Your task to perform on an android device: delete a single message in the gmail app Image 0: 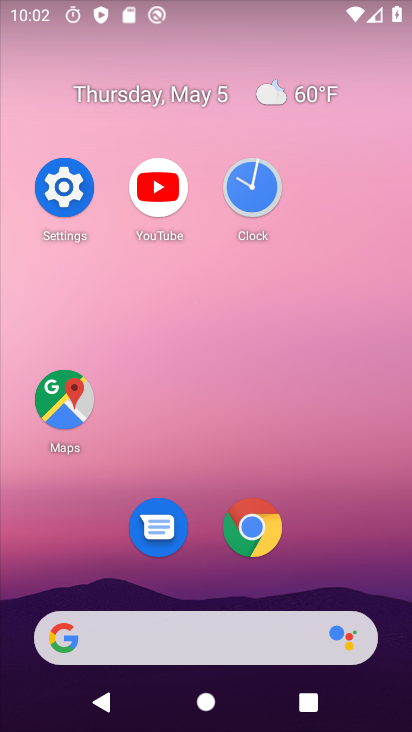
Step 0: drag from (338, 504) to (323, 106)
Your task to perform on an android device: delete a single message in the gmail app Image 1: 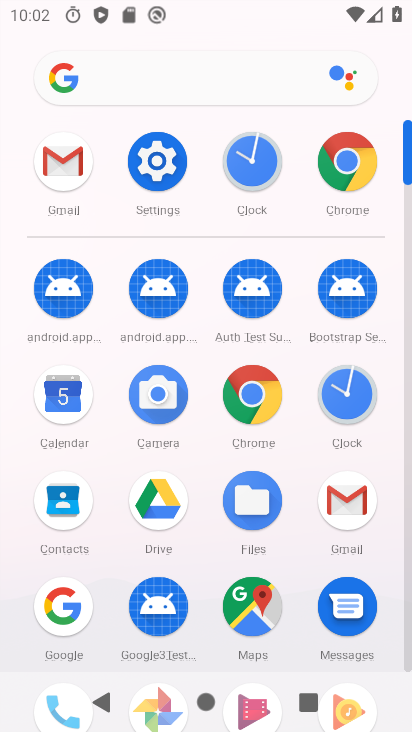
Step 1: drag from (344, 509) to (100, 284)
Your task to perform on an android device: delete a single message in the gmail app Image 2: 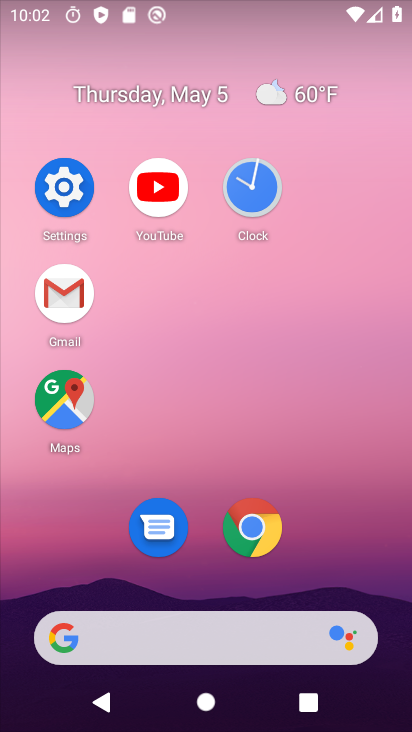
Step 2: click (63, 277)
Your task to perform on an android device: delete a single message in the gmail app Image 3: 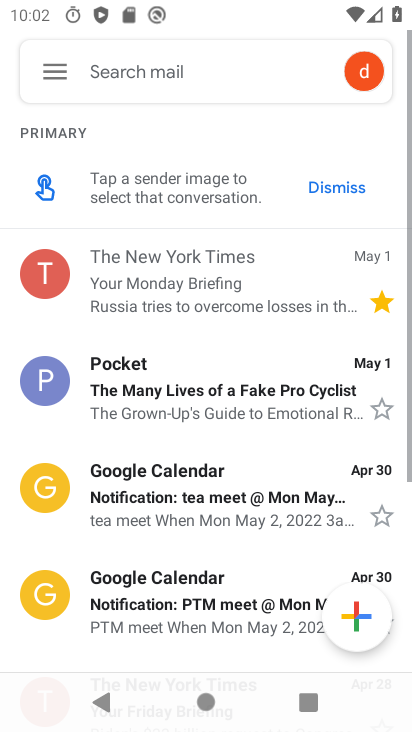
Step 3: click (66, 82)
Your task to perform on an android device: delete a single message in the gmail app Image 4: 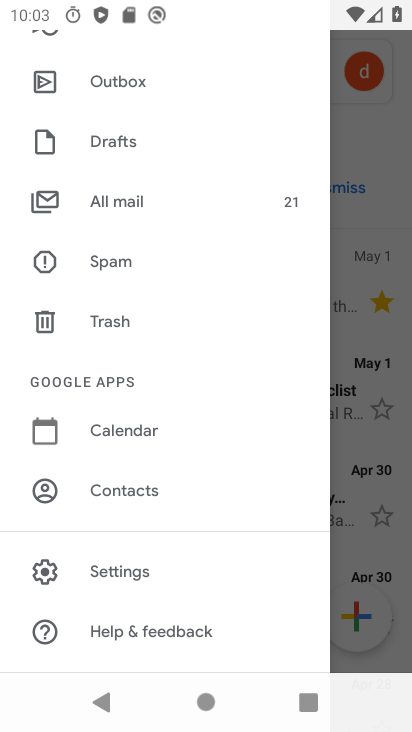
Step 4: drag from (181, 400) to (205, 201)
Your task to perform on an android device: delete a single message in the gmail app Image 5: 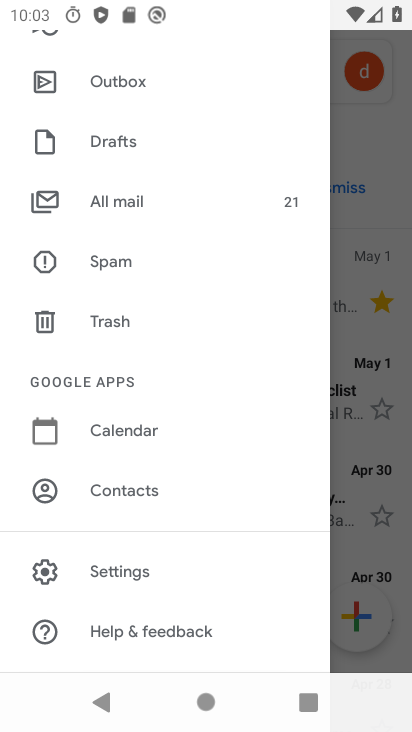
Step 5: click (205, 201)
Your task to perform on an android device: delete a single message in the gmail app Image 6: 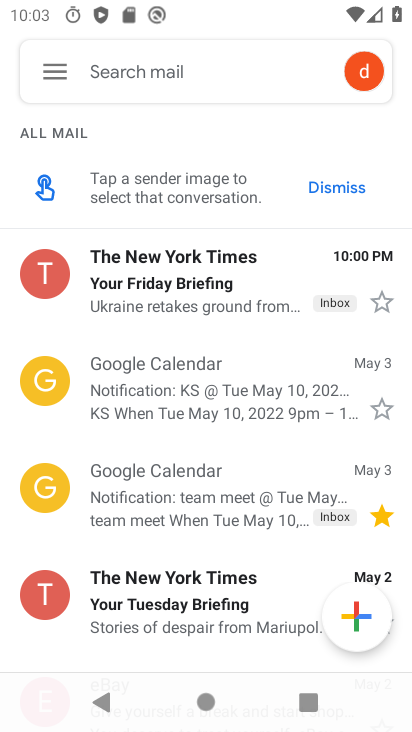
Step 6: click (224, 270)
Your task to perform on an android device: delete a single message in the gmail app Image 7: 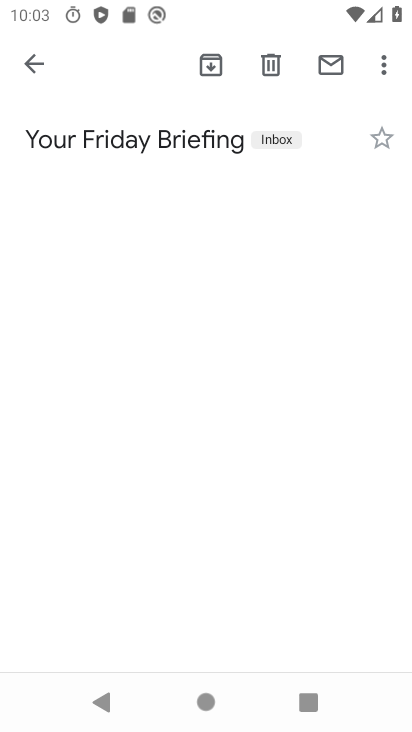
Step 7: click (383, 75)
Your task to perform on an android device: delete a single message in the gmail app Image 8: 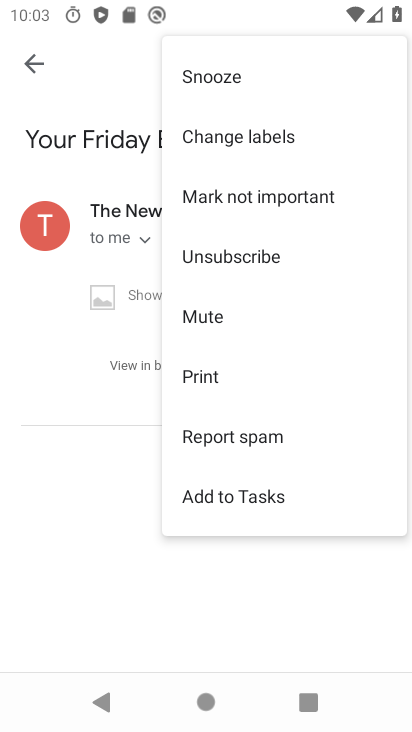
Step 8: click (119, 565)
Your task to perform on an android device: delete a single message in the gmail app Image 9: 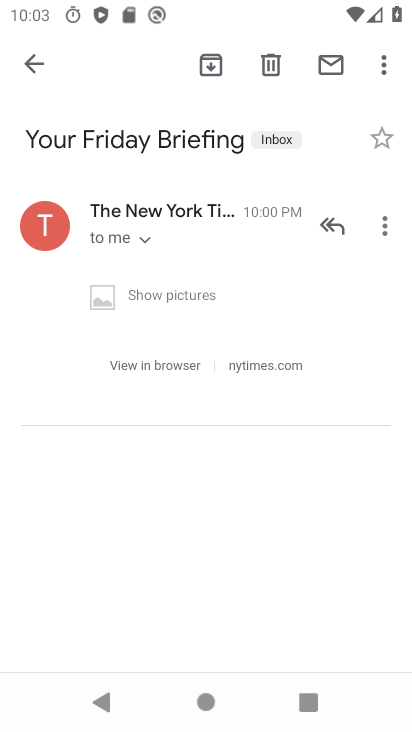
Step 9: click (50, 64)
Your task to perform on an android device: delete a single message in the gmail app Image 10: 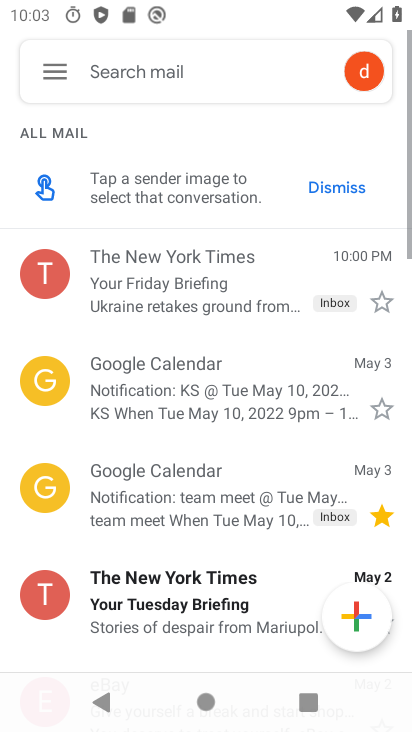
Step 10: click (211, 290)
Your task to perform on an android device: delete a single message in the gmail app Image 11: 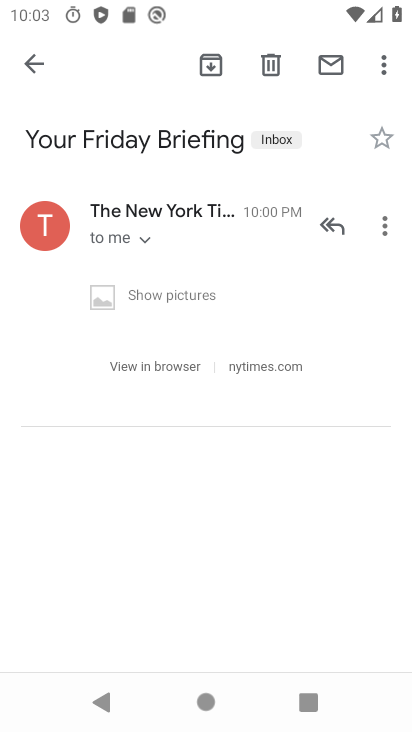
Step 11: click (260, 65)
Your task to perform on an android device: delete a single message in the gmail app Image 12: 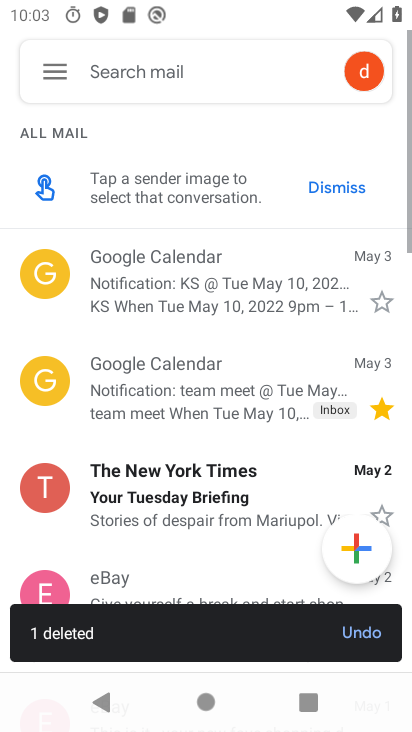
Step 12: task complete